Your task to perform on an android device: Open the web browser Image 0: 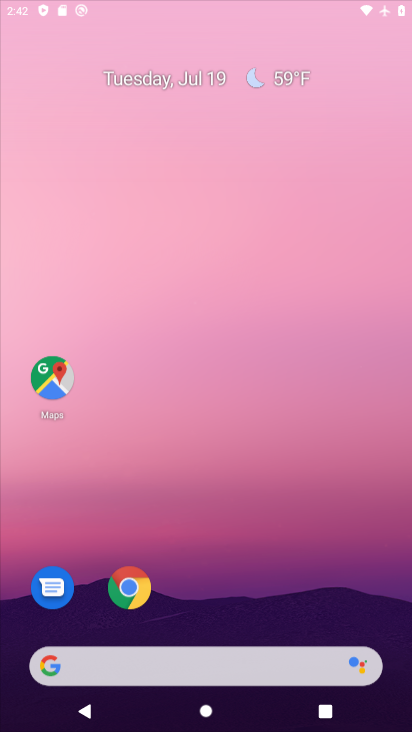
Step 0: press home button
Your task to perform on an android device: Open the web browser Image 1: 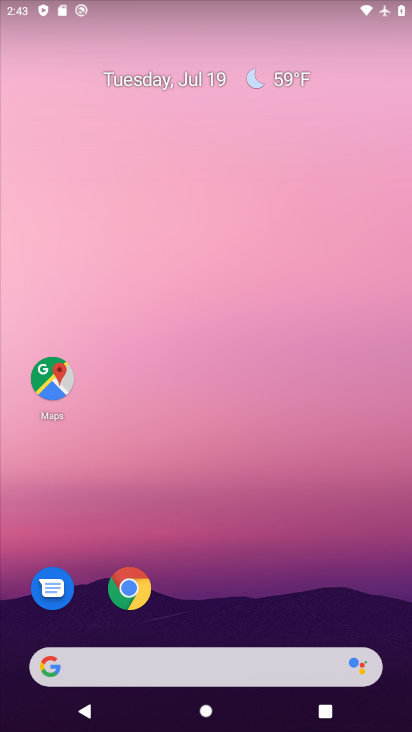
Step 1: click (48, 674)
Your task to perform on an android device: Open the web browser Image 2: 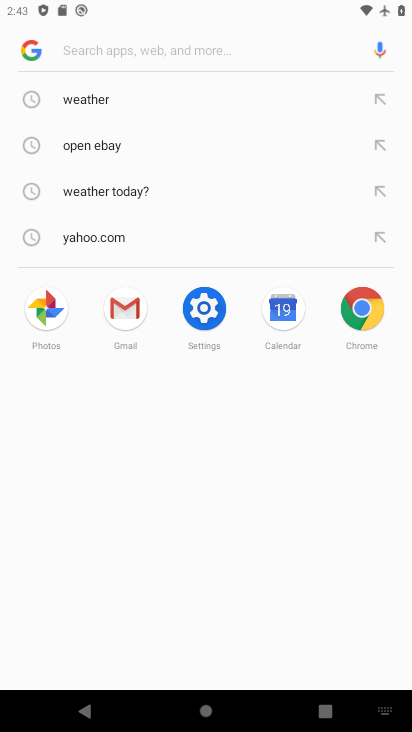
Step 2: task complete